Your task to perform on an android device: Open the phone app and click the voicemail tab. Image 0: 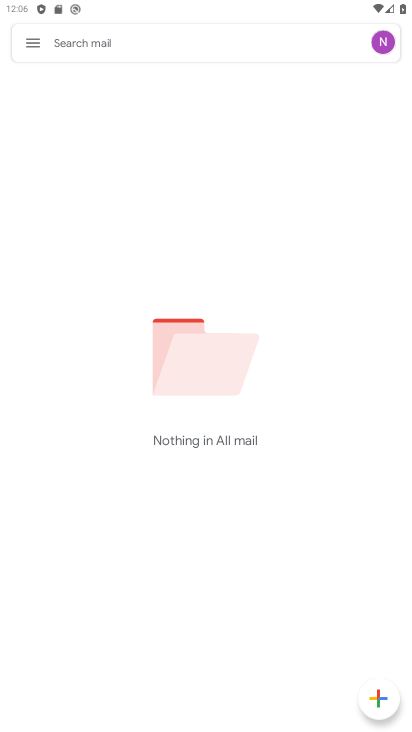
Step 0: press home button
Your task to perform on an android device: Open the phone app and click the voicemail tab. Image 1: 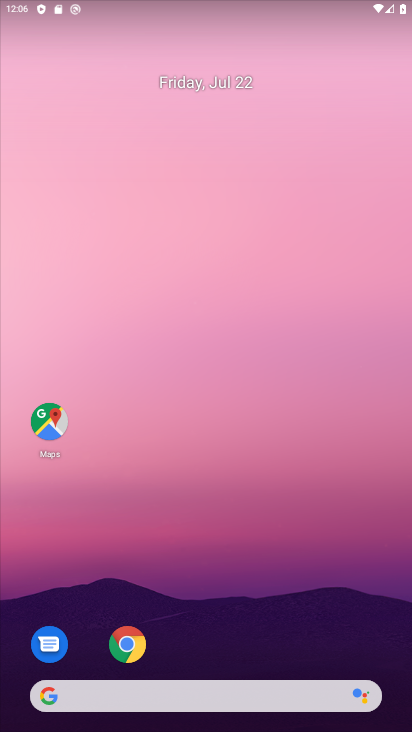
Step 1: drag from (228, 667) to (241, 77)
Your task to perform on an android device: Open the phone app and click the voicemail tab. Image 2: 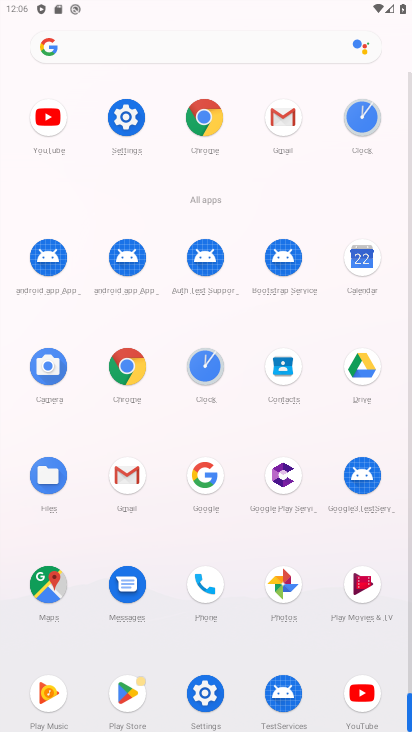
Step 2: click (195, 584)
Your task to perform on an android device: Open the phone app and click the voicemail tab. Image 3: 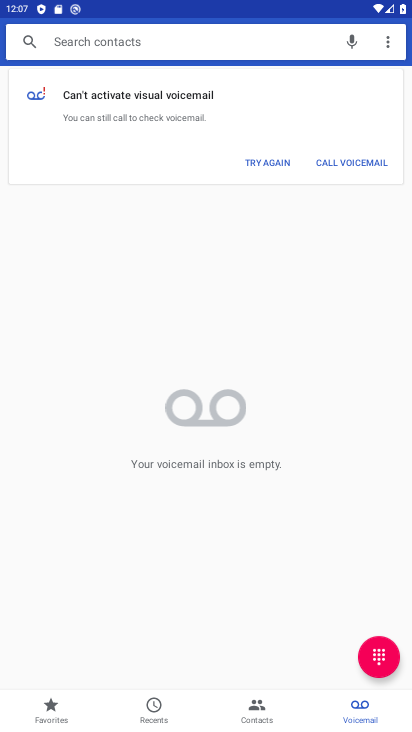
Step 3: task complete